Your task to perform on an android device: Open calendar and show me the first week of next month Image 0: 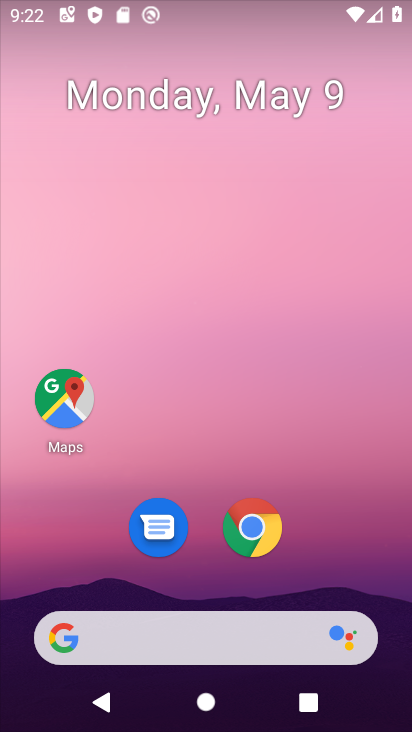
Step 0: drag from (230, 590) to (250, 129)
Your task to perform on an android device: Open calendar and show me the first week of next month Image 1: 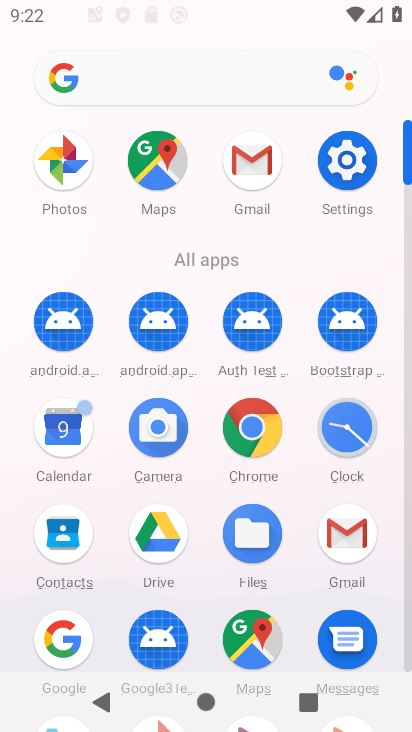
Step 1: drag from (197, 666) to (197, 352)
Your task to perform on an android device: Open calendar and show me the first week of next month Image 2: 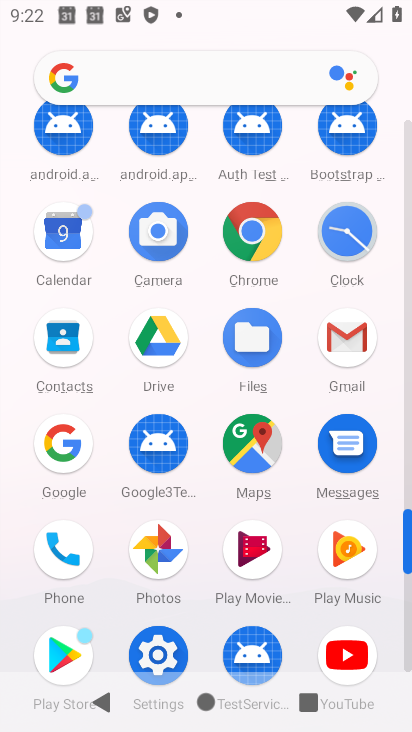
Step 2: click (67, 235)
Your task to perform on an android device: Open calendar and show me the first week of next month Image 3: 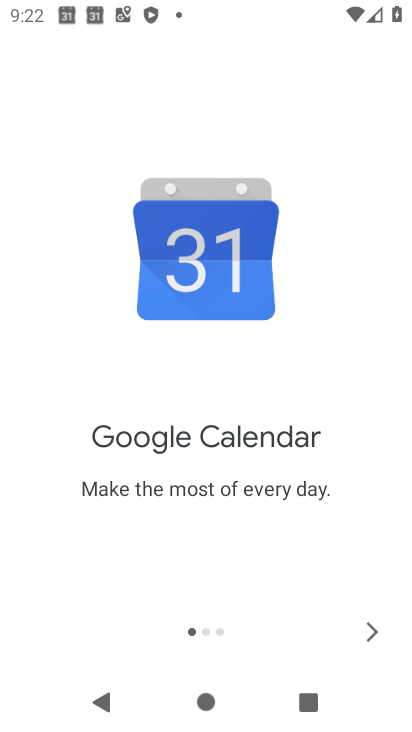
Step 3: click (366, 642)
Your task to perform on an android device: Open calendar and show me the first week of next month Image 4: 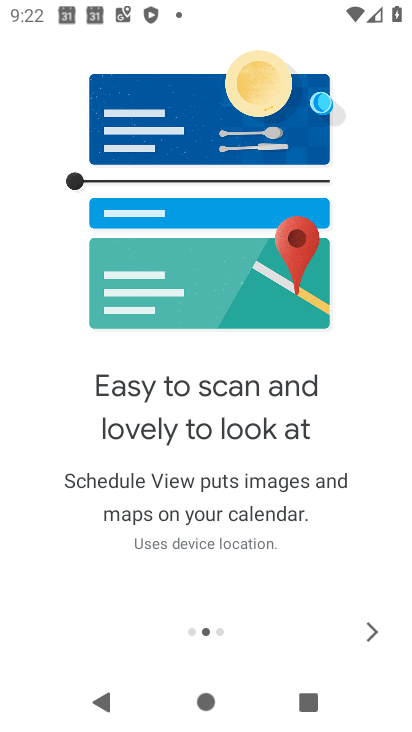
Step 4: click (366, 642)
Your task to perform on an android device: Open calendar and show me the first week of next month Image 5: 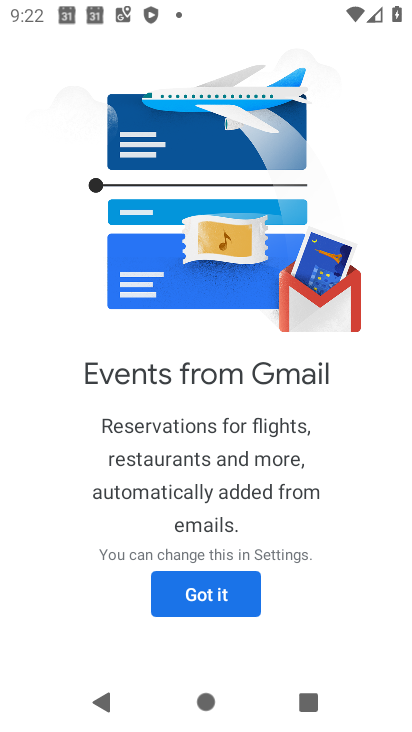
Step 5: click (170, 593)
Your task to perform on an android device: Open calendar and show me the first week of next month Image 6: 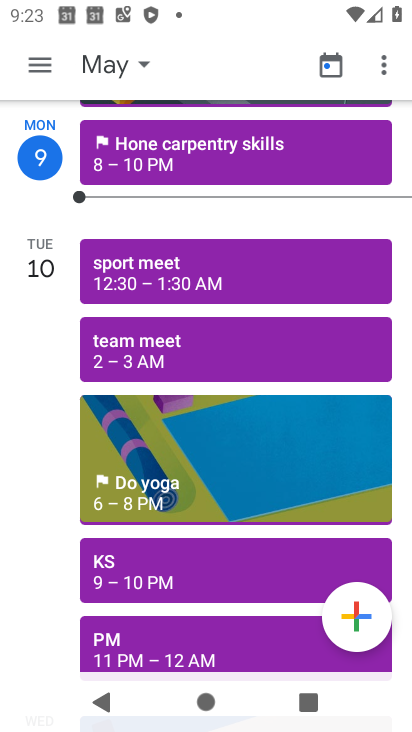
Step 6: click (103, 68)
Your task to perform on an android device: Open calendar and show me the first week of next month Image 7: 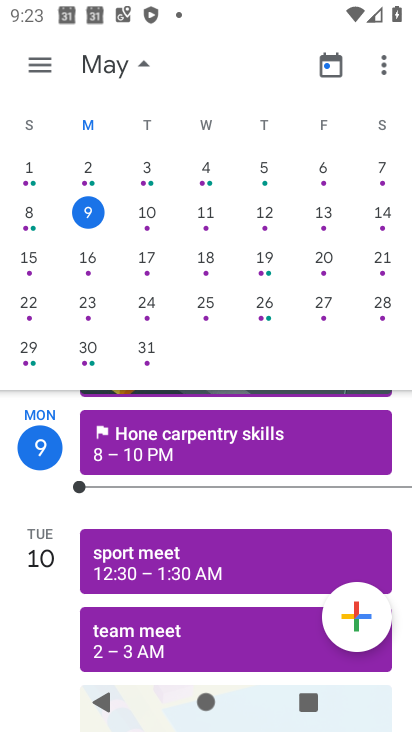
Step 7: task complete